Your task to perform on an android device: Open Google Chrome and open the bookmarks view Image 0: 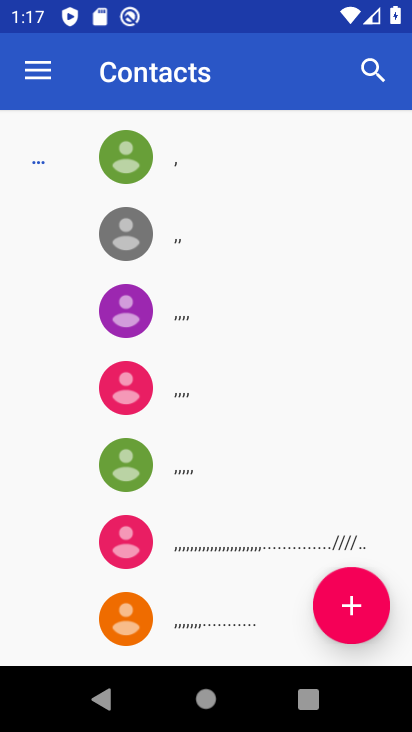
Step 0: press back button
Your task to perform on an android device: Open Google Chrome and open the bookmarks view Image 1: 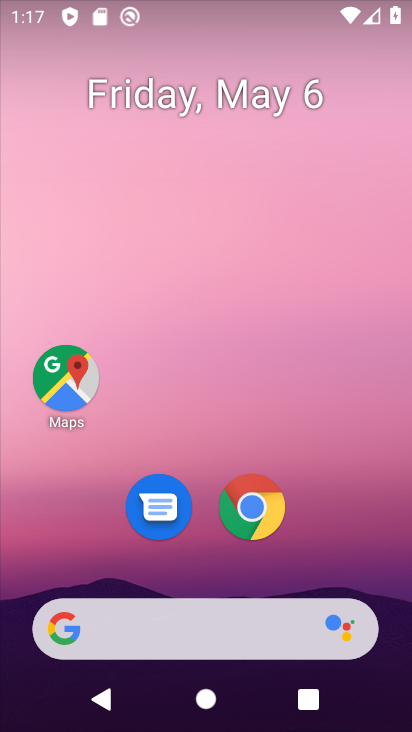
Step 1: click (260, 520)
Your task to perform on an android device: Open Google Chrome and open the bookmarks view Image 2: 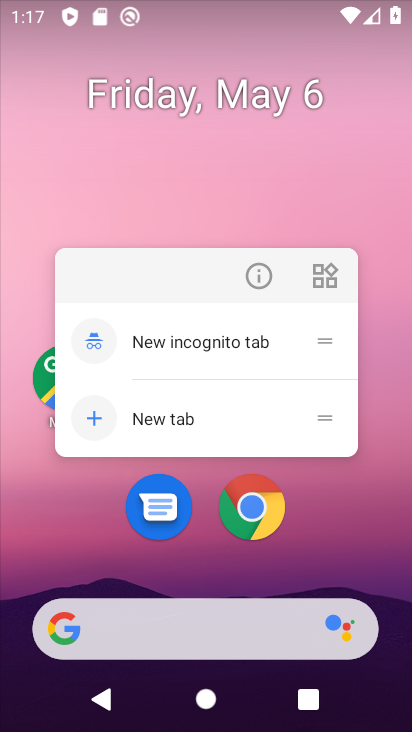
Step 2: click (267, 502)
Your task to perform on an android device: Open Google Chrome and open the bookmarks view Image 3: 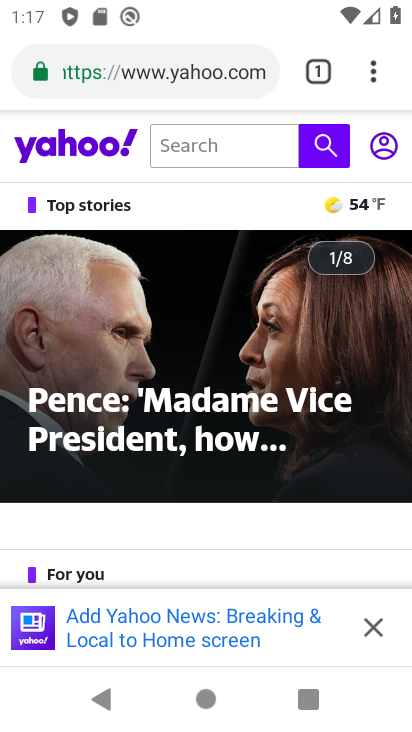
Step 3: task complete